Your task to perform on an android device: Go to display settings Image 0: 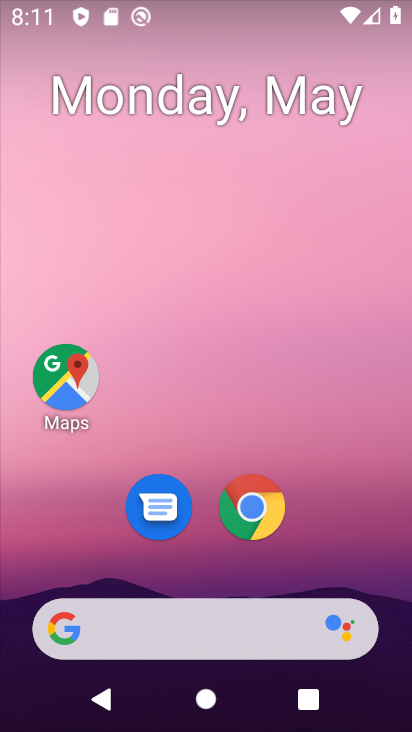
Step 0: drag from (197, 556) to (303, 5)
Your task to perform on an android device: Go to display settings Image 1: 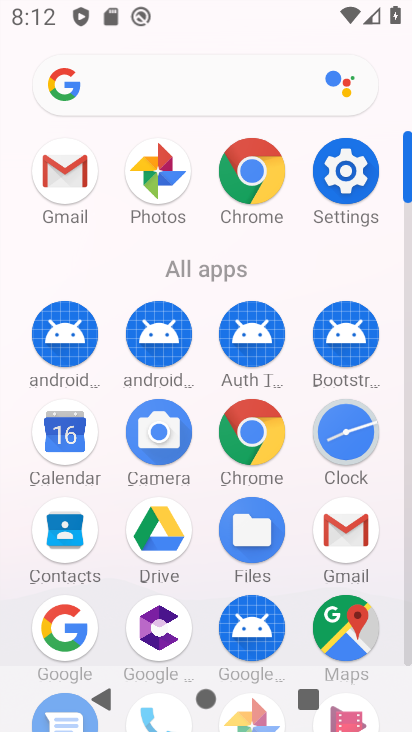
Step 1: click (363, 193)
Your task to perform on an android device: Go to display settings Image 2: 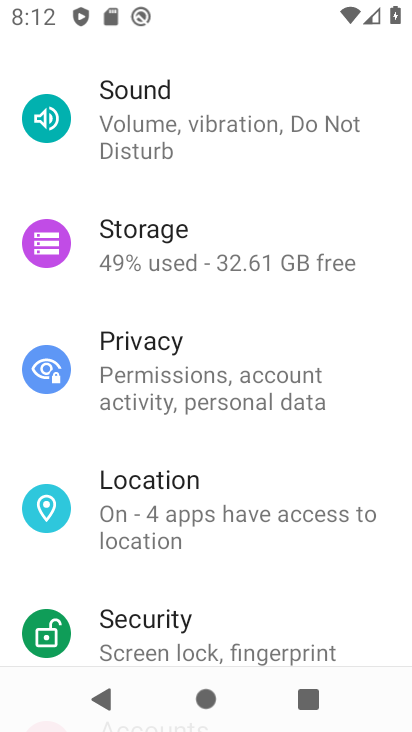
Step 2: drag from (187, 233) to (179, 539)
Your task to perform on an android device: Go to display settings Image 3: 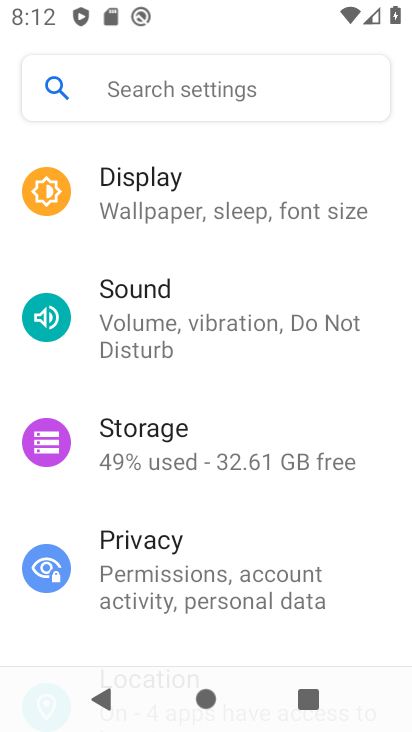
Step 3: click (221, 202)
Your task to perform on an android device: Go to display settings Image 4: 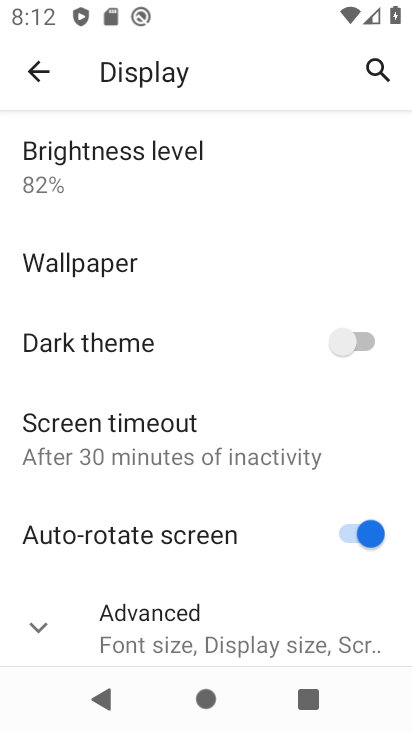
Step 4: task complete